Your task to perform on an android device: snooze an email in the gmail app Image 0: 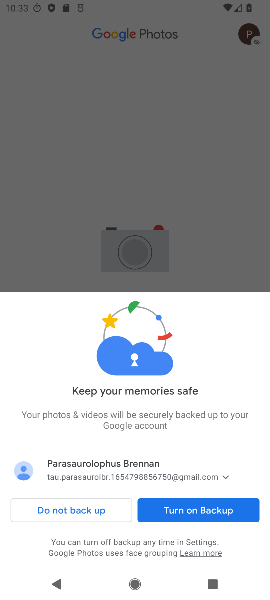
Step 0: press home button
Your task to perform on an android device: snooze an email in the gmail app Image 1: 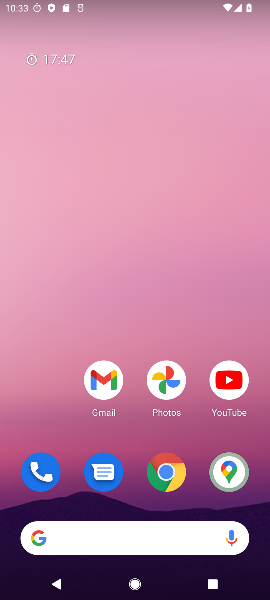
Step 1: drag from (150, 331) to (172, 4)
Your task to perform on an android device: snooze an email in the gmail app Image 2: 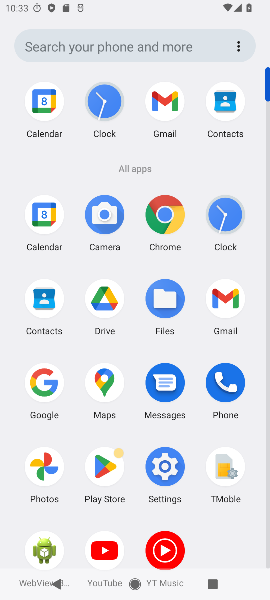
Step 2: click (151, 113)
Your task to perform on an android device: snooze an email in the gmail app Image 3: 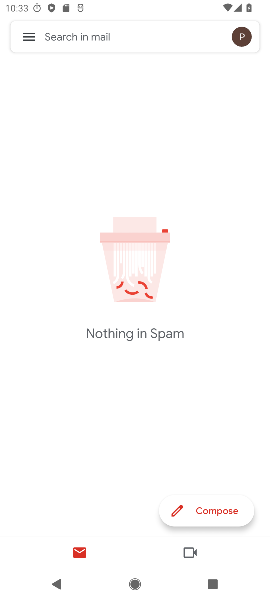
Step 3: click (27, 36)
Your task to perform on an android device: snooze an email in the gmail app Image 4: 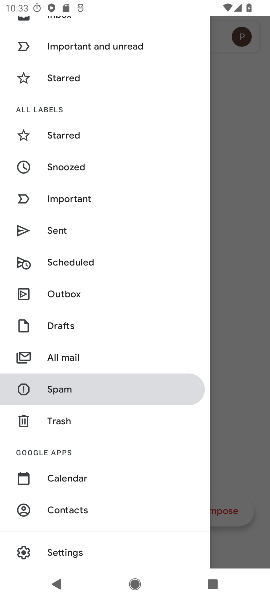
Step 4: click (81, 354)
Your task to perform on an android device: snooze an email in the gmail app Image 5: 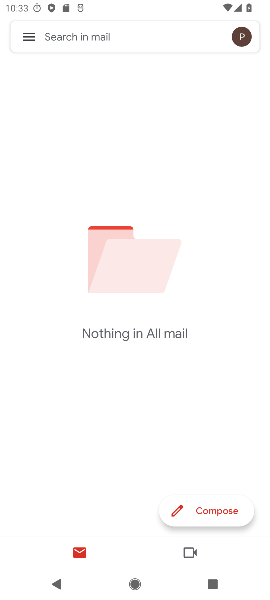
Step 5: task complete